Your task to perform on an android device: open a bookmark in the chrome app Image 0: 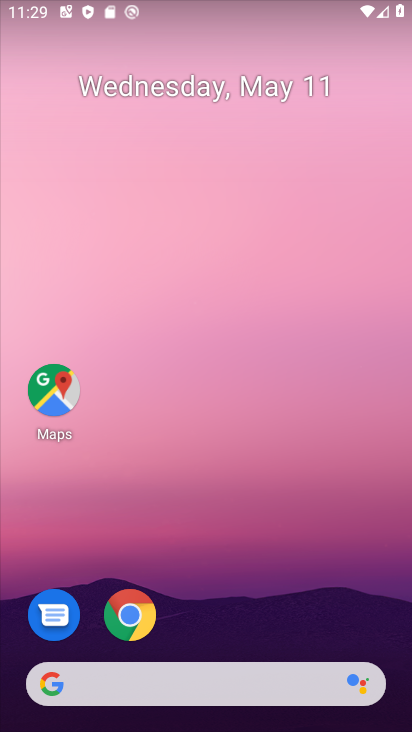
Step 0: click (122, 609)
Your task to perform on an android device: open a bookmark in the chrome app Image 1: 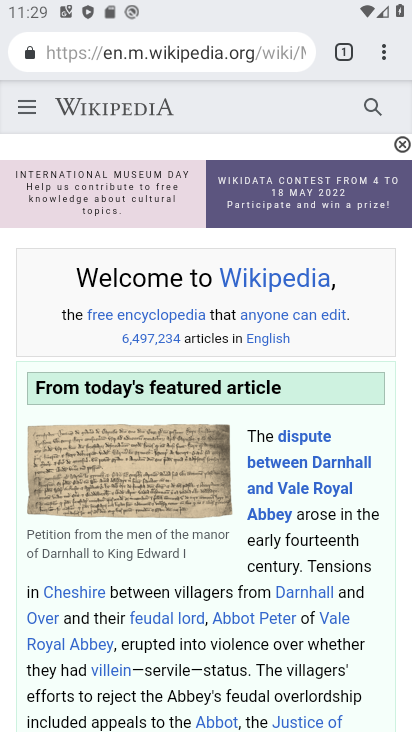
Step 1: click (383, 53)
Your task to perform on an android device: open a bookmark in the chrome app Image 2: 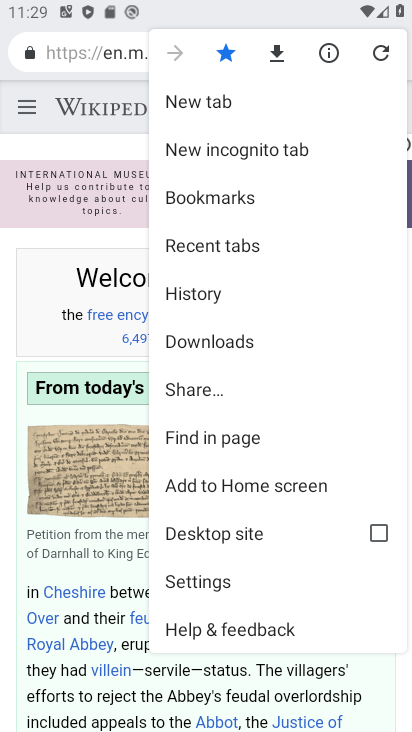
Step 2: click (219, 199)
Your task to perform on an android device: open a bookmark in the chrome app Image 3: 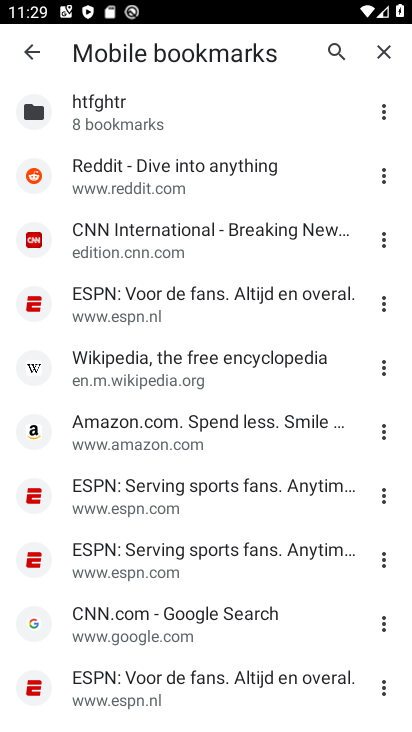
Step 3: task complete